Your task to perform on an android device: toggle wifi Image 0: 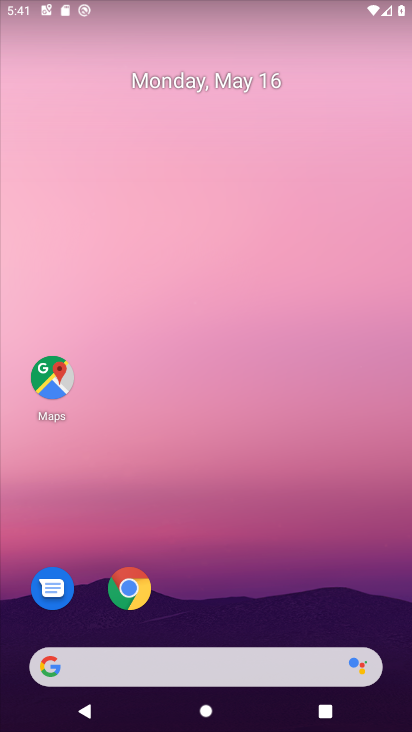
Step 0: click (66, 373)
Your task to perform on an android device: toggle wifi Image 1: 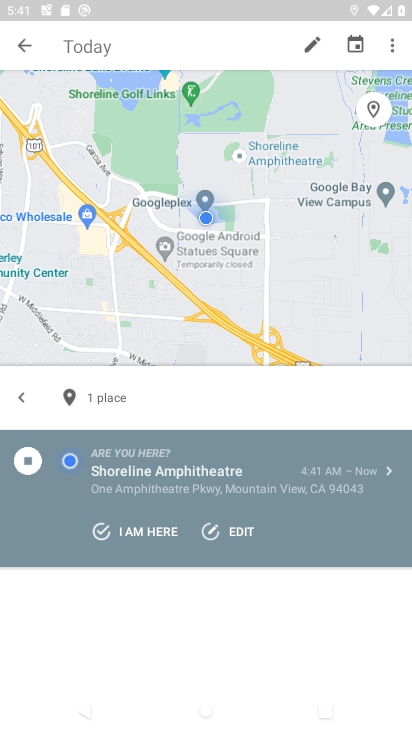
Step 1: task complete